Your task to perform on an android device: set an alarm Image 0: 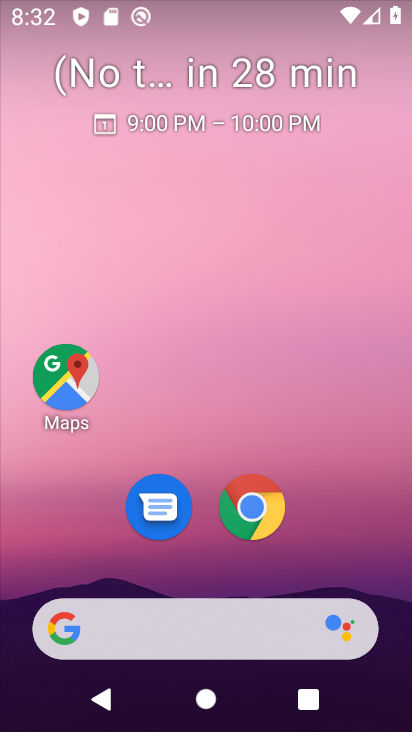
Step 0: drag from (397, 607) to (295, 143)
Your task to perform on an android device: set an alarm Image 1: 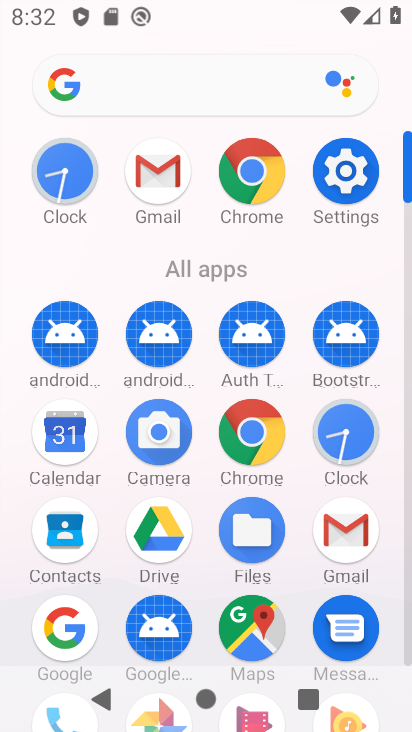
Step 1: click (72, 183)
Your task to perform on an android device: set an alarm Image 2: 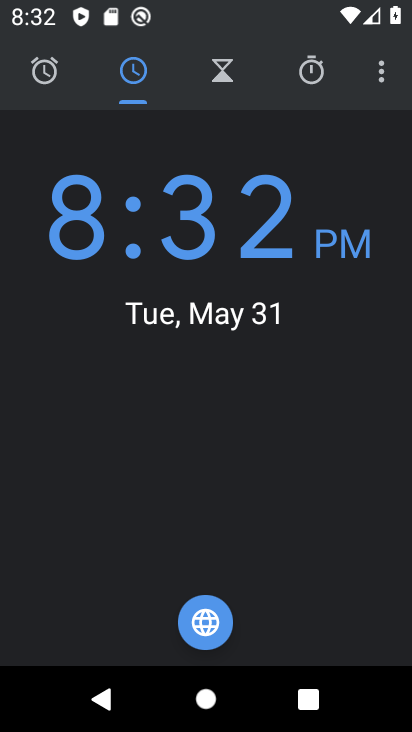
Step 2: click (42, 93)
Your task to perform on an android device: set an alarm Image 3: 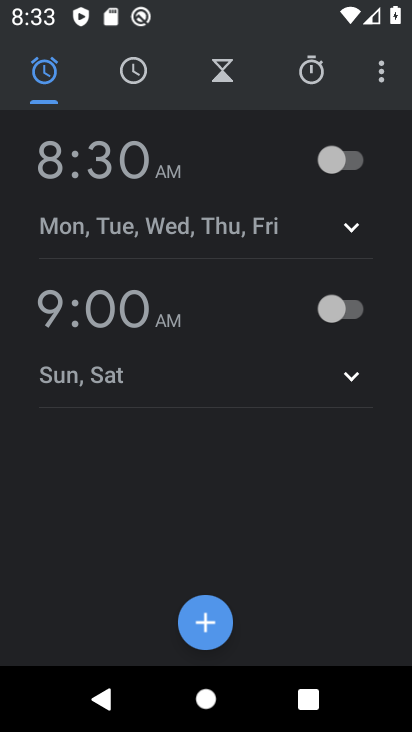
Step 3: click (218, 617)
Your task to perform on an android device: set an alarm Image 4: 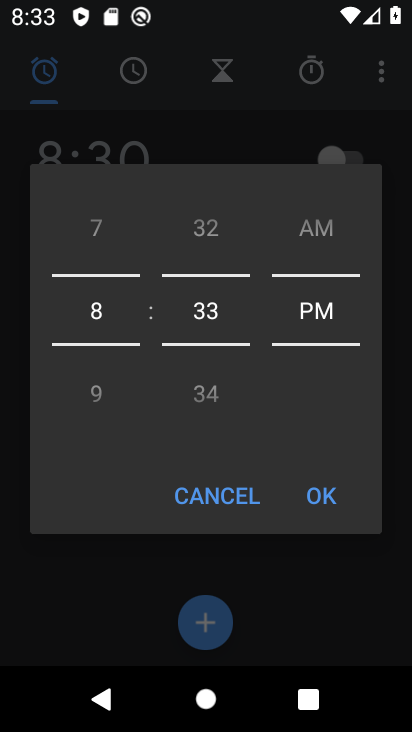
Step 4: click (322, 497)
Your task to perform on an android device: set an alarm Image 5: 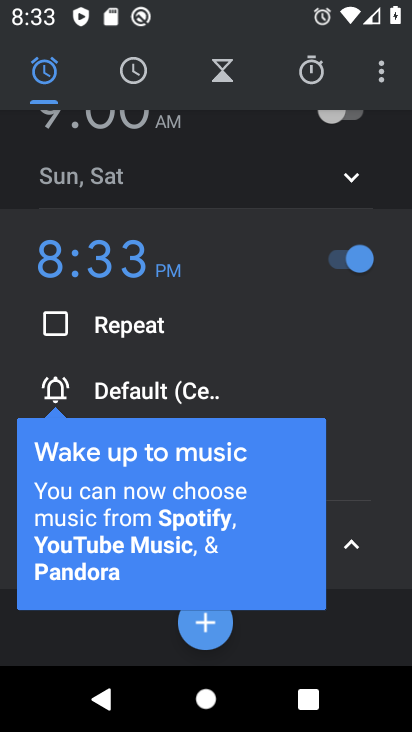
Step 5: task complete